Your task to perform on an android device: Show the shopping cart on ebay.com. Search for usb-a on ebay.com, select the first entry, add it to the cart, then select checkout. Image 0: 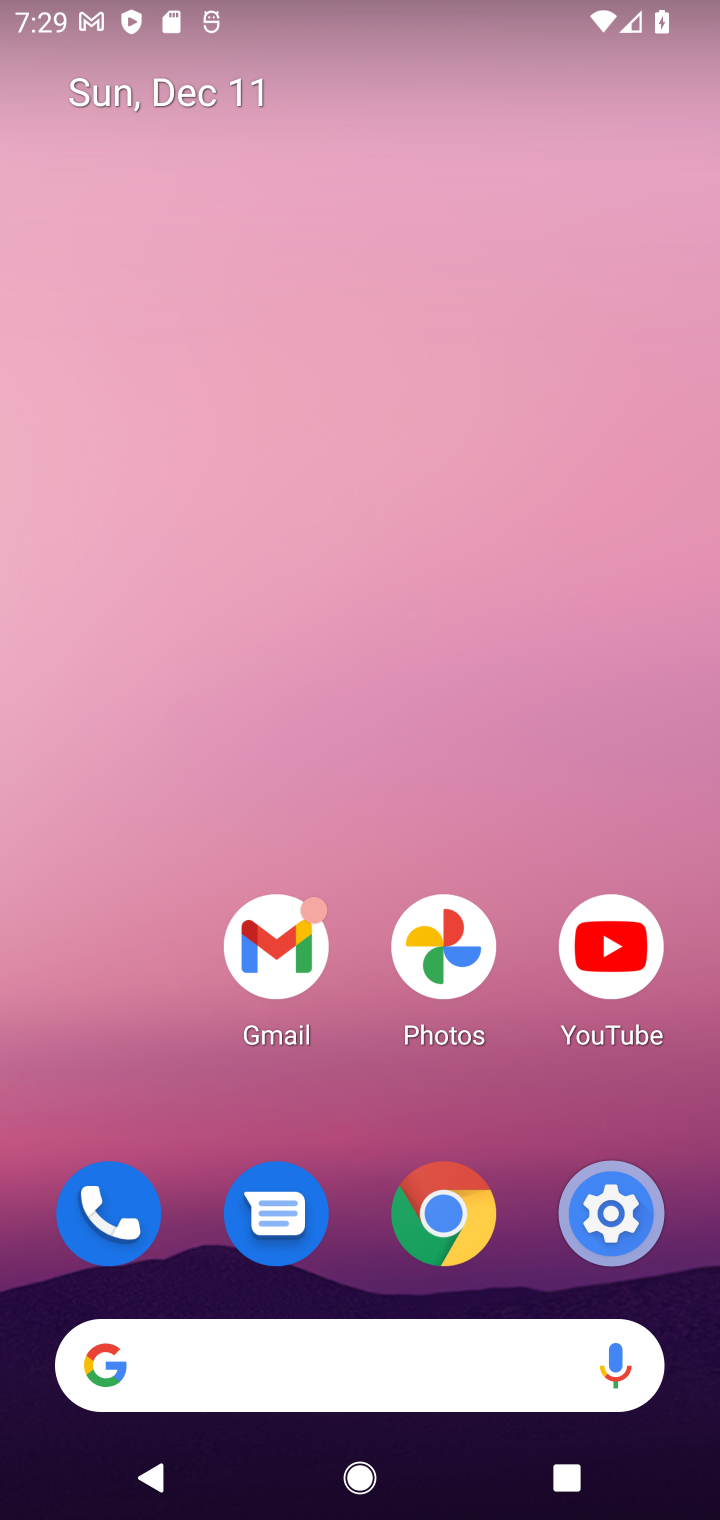
Step 0: click (348, 1327)
Your task to perform on an android device: Show the shopping cart on ebay.com. Search for usb-a on ebay.com, select the first entry, add it to the cart, then select checkout. Image 1: 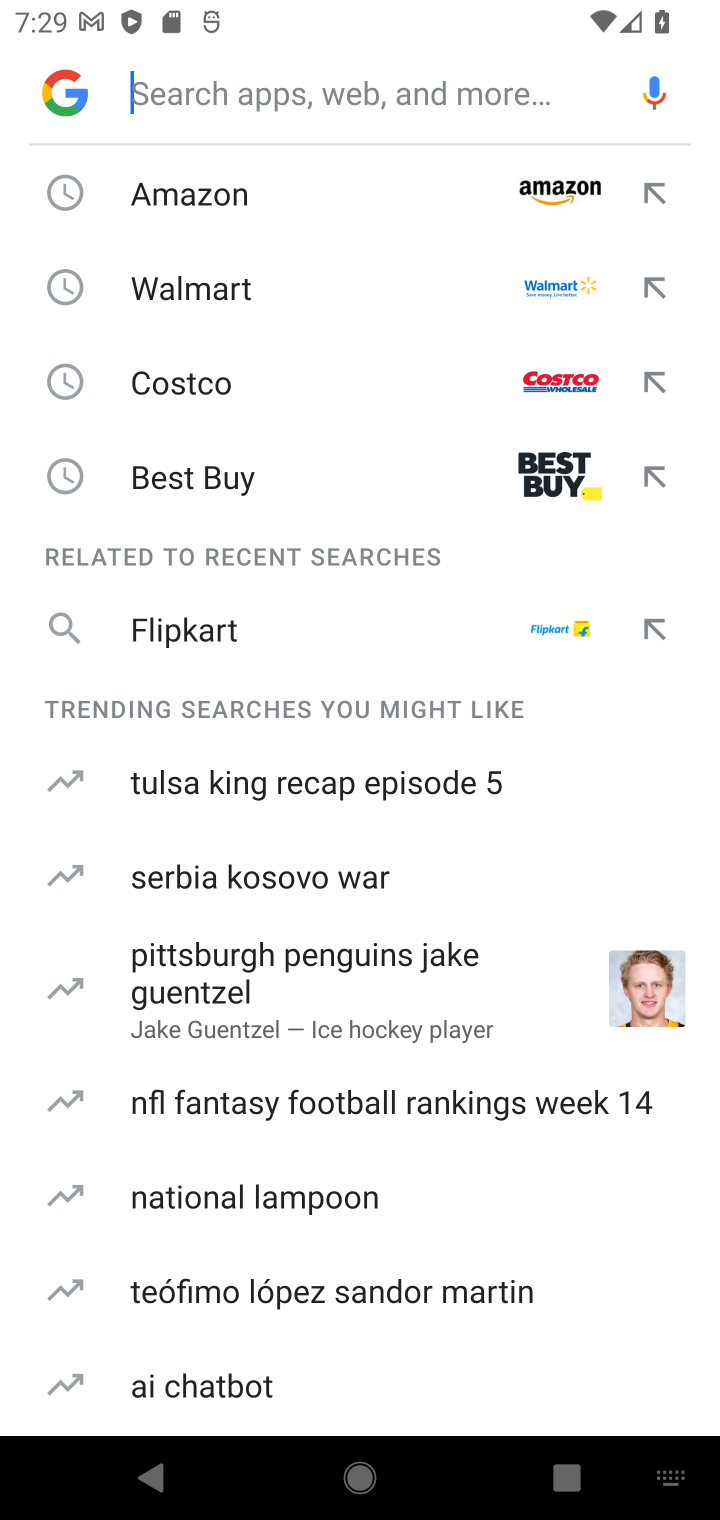
Step 1: type "eb"
Your task to perform on an android device: Show the shopping cart on ebay.com. Search for usb-a on ebay.com, select the first entry, add it to the cart, then select checkout. Image 2: 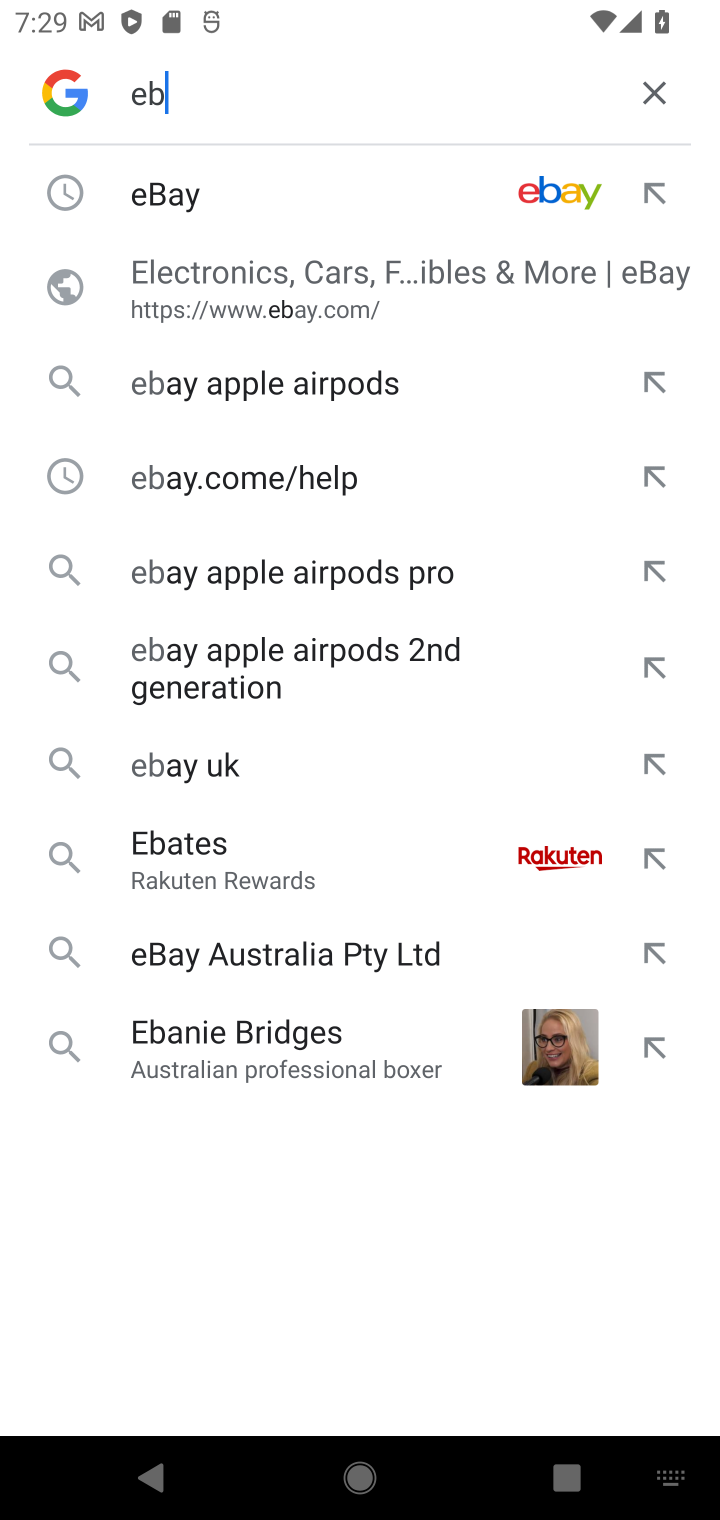
Step 2: type "ebay"
Your task to perform on an android device: Show the shopping cart on ebay.com. Search for usb-a on ebay.com, select the first entry, add it to the cart, then select checkout. Image 3: 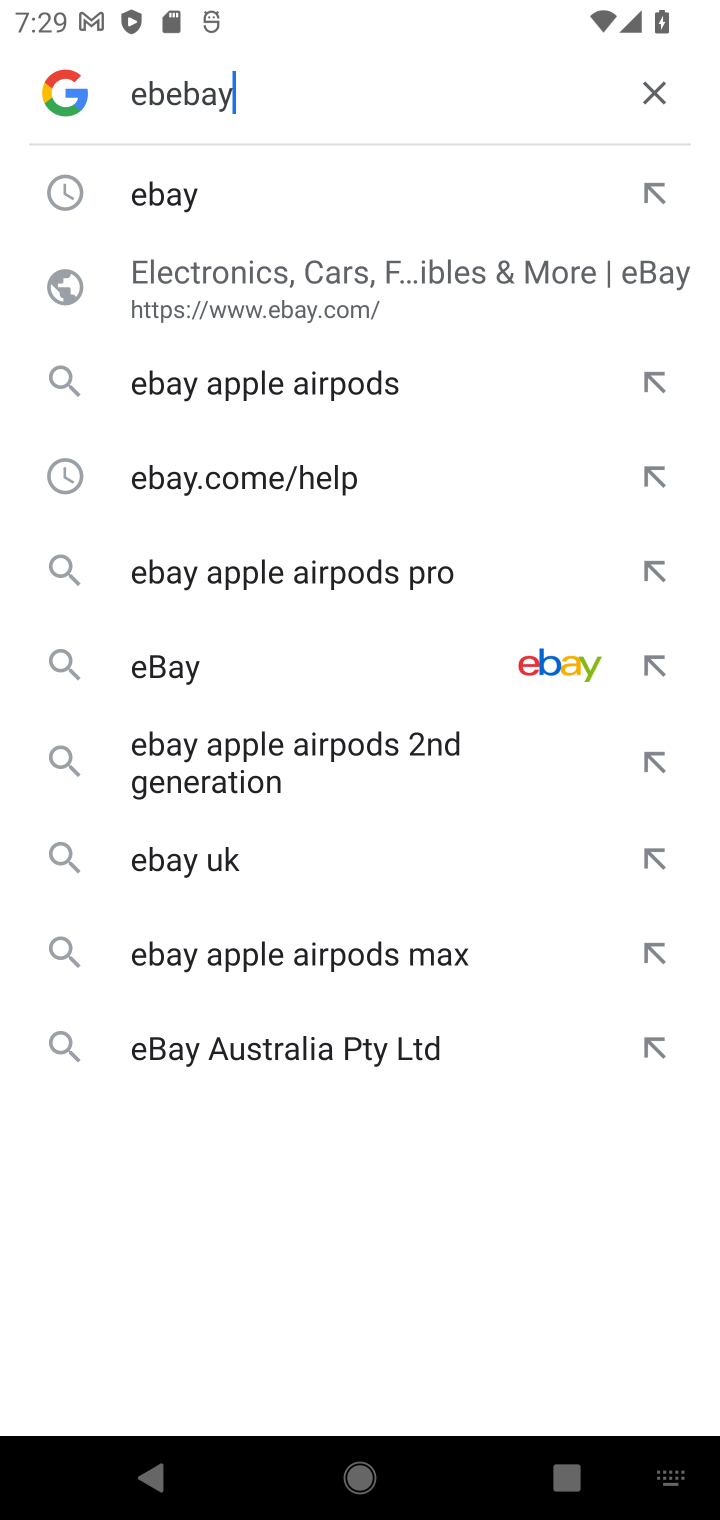
Step 3: click (221, 210)
Your task to perform on an android device: Show the shopping cart on ebay.com. Search for usb-a on ebay.com, select the first entry, add it to the cart, then select checkout. Image 4: 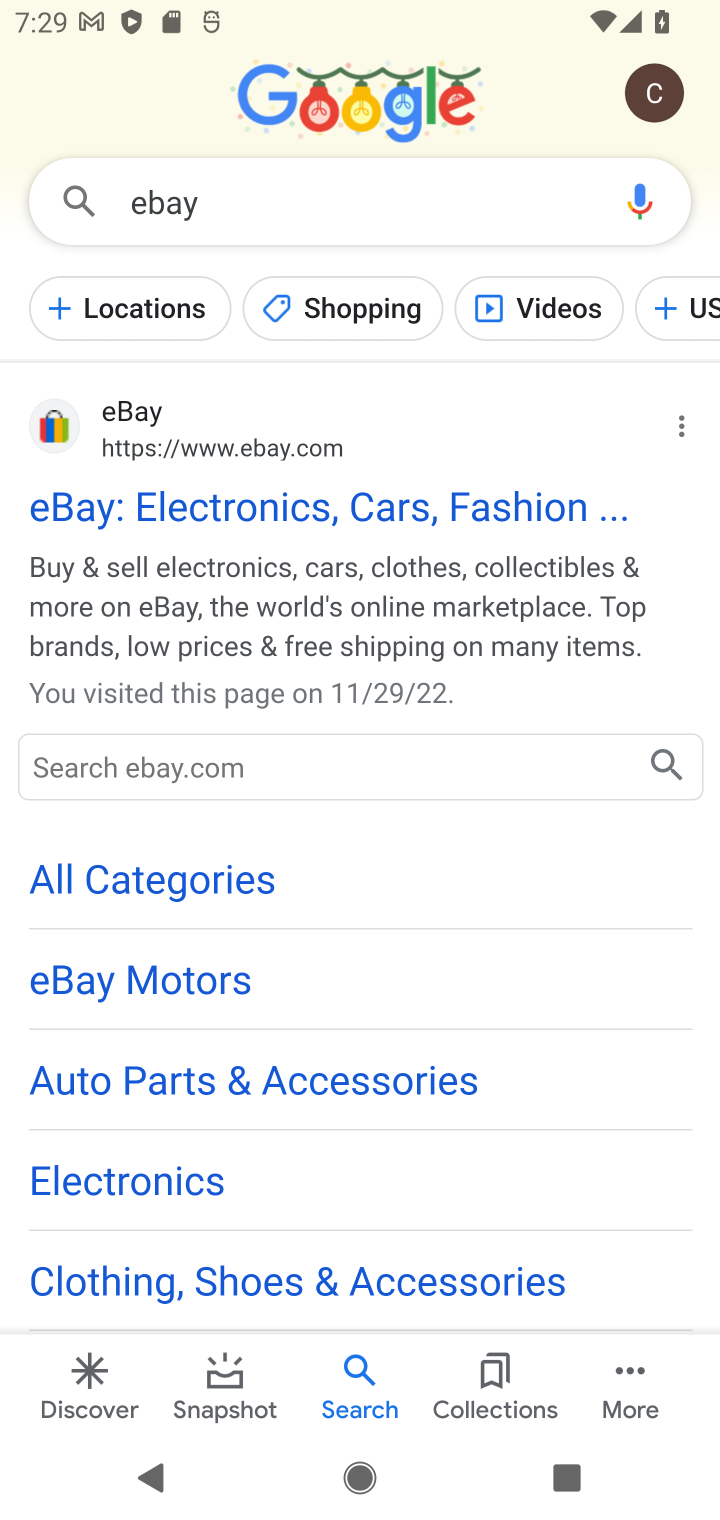
Step 4: click (200, 462)
Your task to perform on an android device: Show the shopping cart on ebay.com. Search for usb-a on ebay.com, select the first entry, add it to the cart, then select checkout. Image 5: 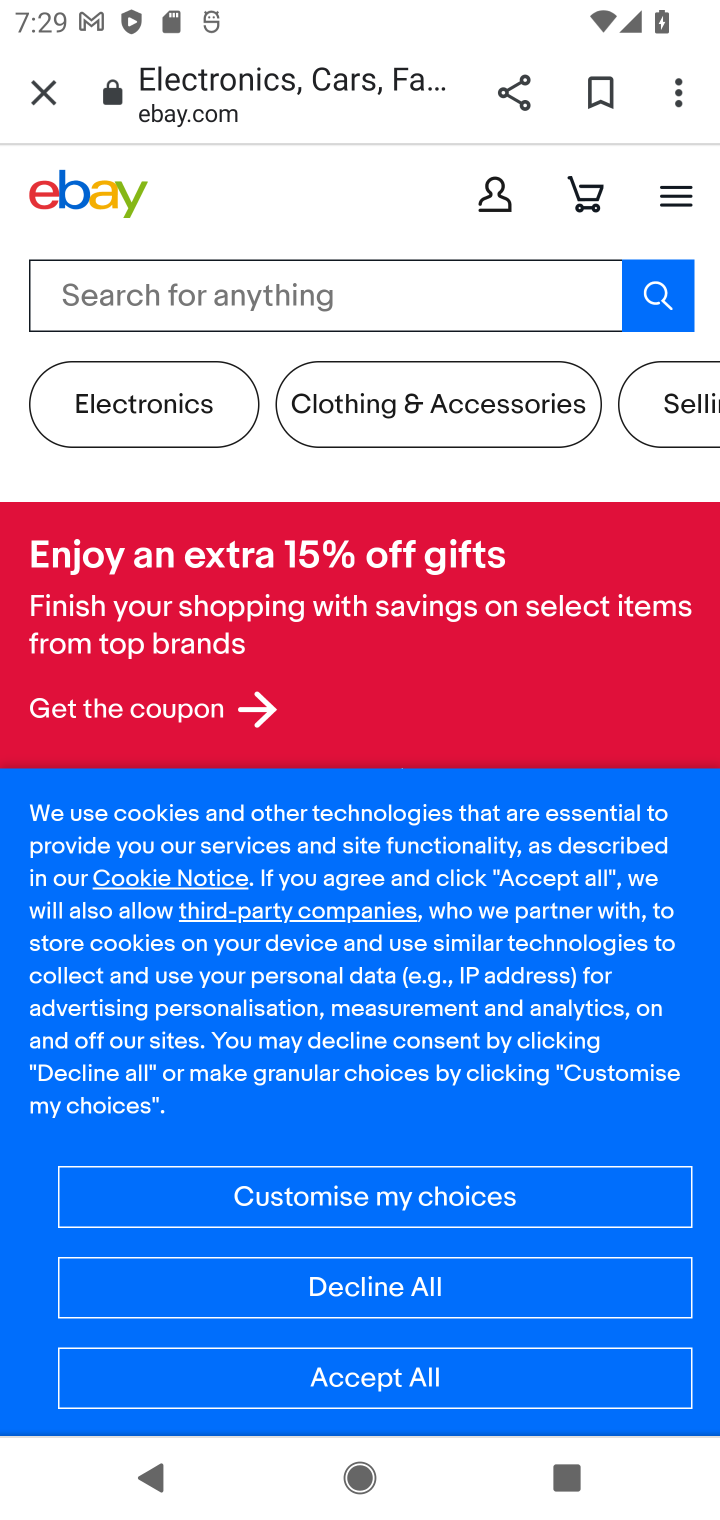
Step 5: click (351, 293)
Your task to perform on an android device: Show the shopping cart on ebay.com. Search for usb-a on ebay.com, select the first entry, add it to the cart, then select checkout. Image 6: 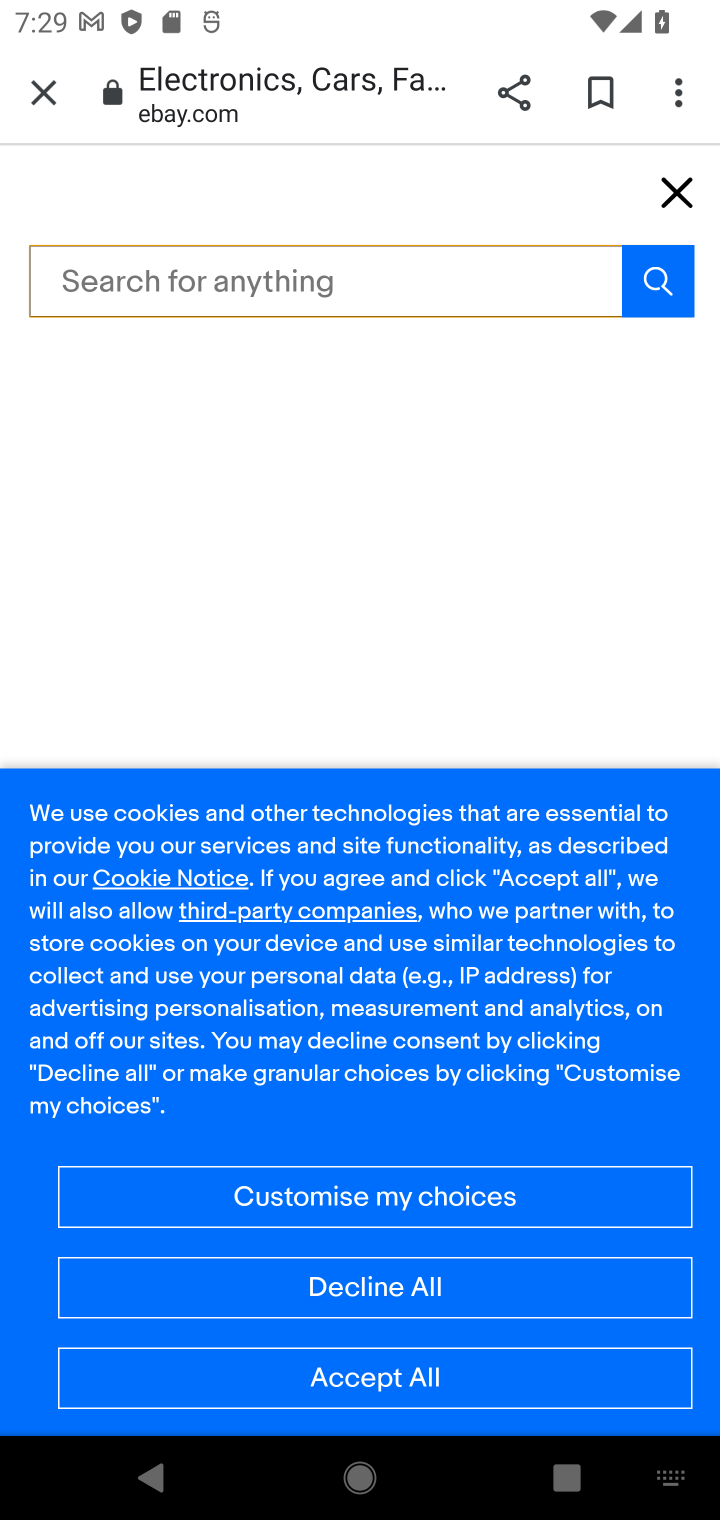
Step 6: type "usb-a"
Your task to perform on an android device: Show the shopping cart on ebay.com. Search for usb-a on ebay.com, select the first entry, add it to the cart, then select checkout. Image 7: 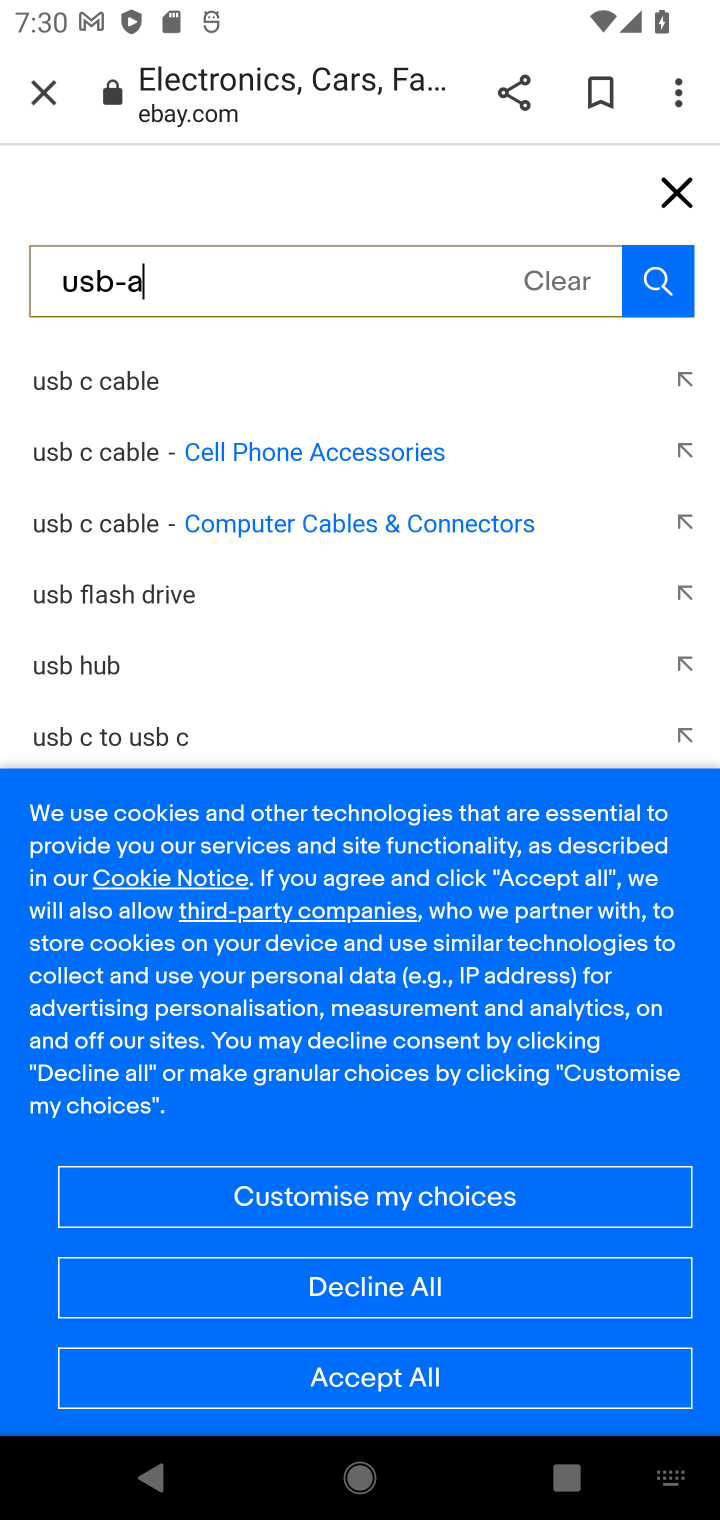
Step 7: click (185, 371)
Your task to perform on an android device: Show the shopping cart on ebay.com. Search for usb-a on ebay.com, select the first entry, add it to the cart, then select checkout. Image 8: 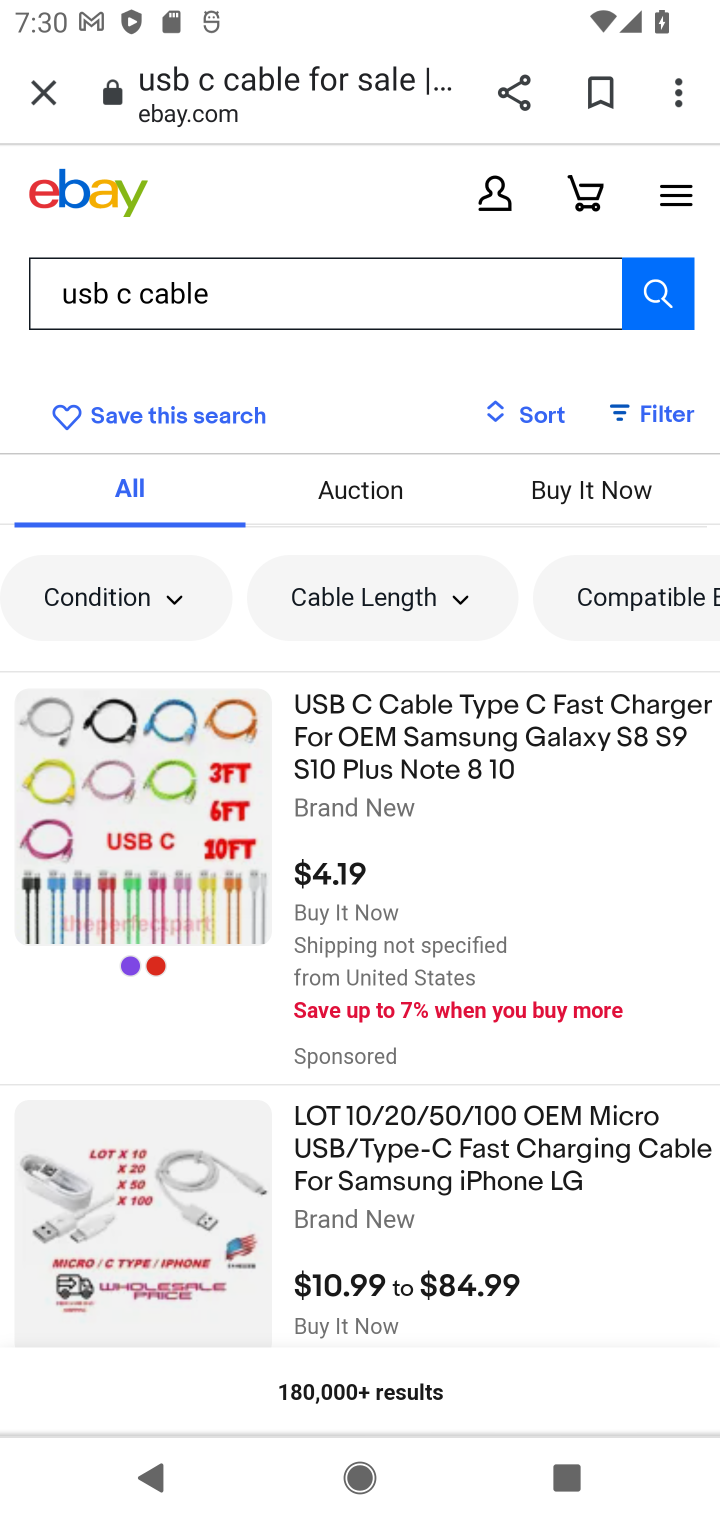
Step 8: click (318, 700)
Your task to perform on an android device: Show the shopping cart on ebay.com. Search for usb-a on ebay.com, select the first entry, add it to the cart, then select checkout. Image 9: 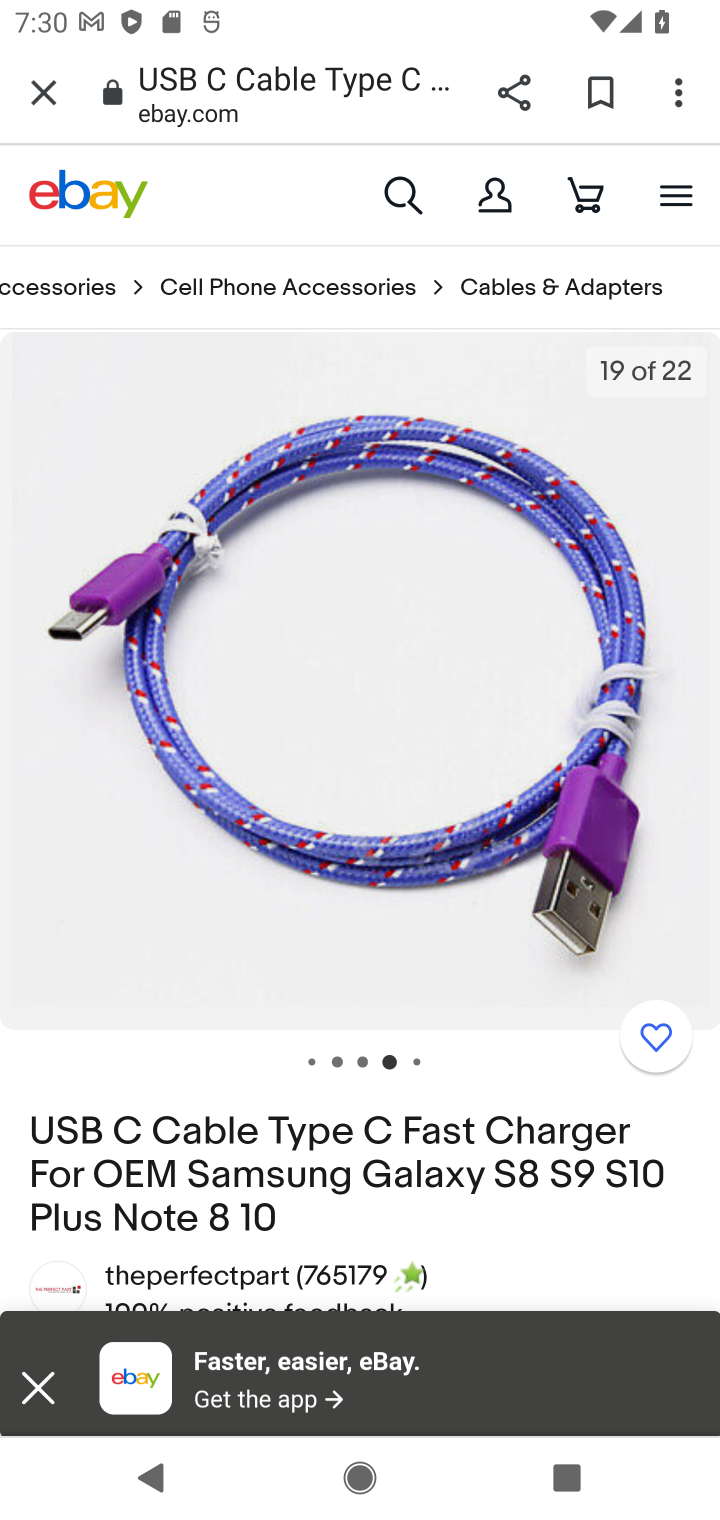
Step 9: click (53, 1409)
Your task to perform on an android device: Show the shopping cart on ebay.com. Search for usb-a on ebay.com, select the first entry, add it to the cart, then select checkout. Image 10: 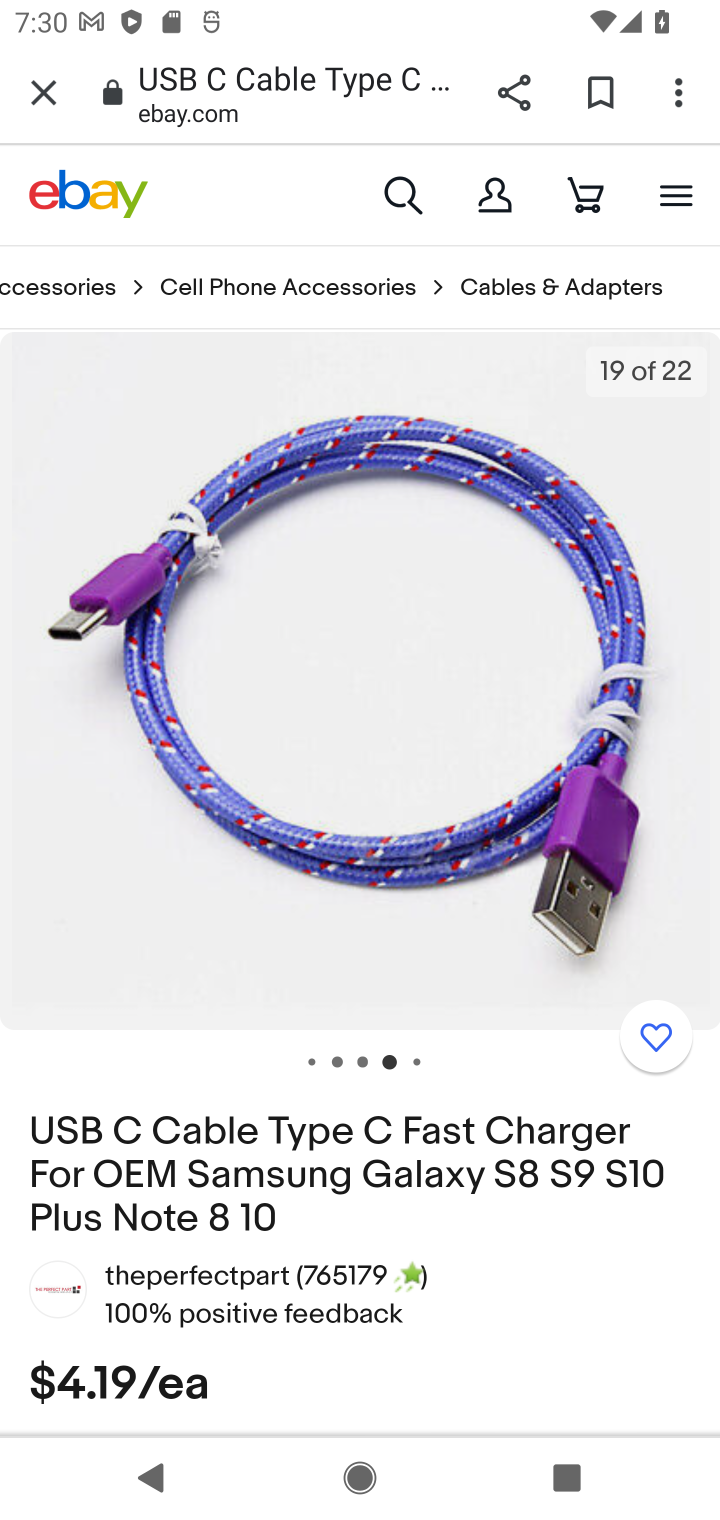
Step 10: drag from (517, 1307) to (448, 641)
Your task to perform on an android device: Show the shopping cart on ebay.com. Search for usb-a on ebay.com, select the first entry, add it to the cart, then select checkout. Image 11: 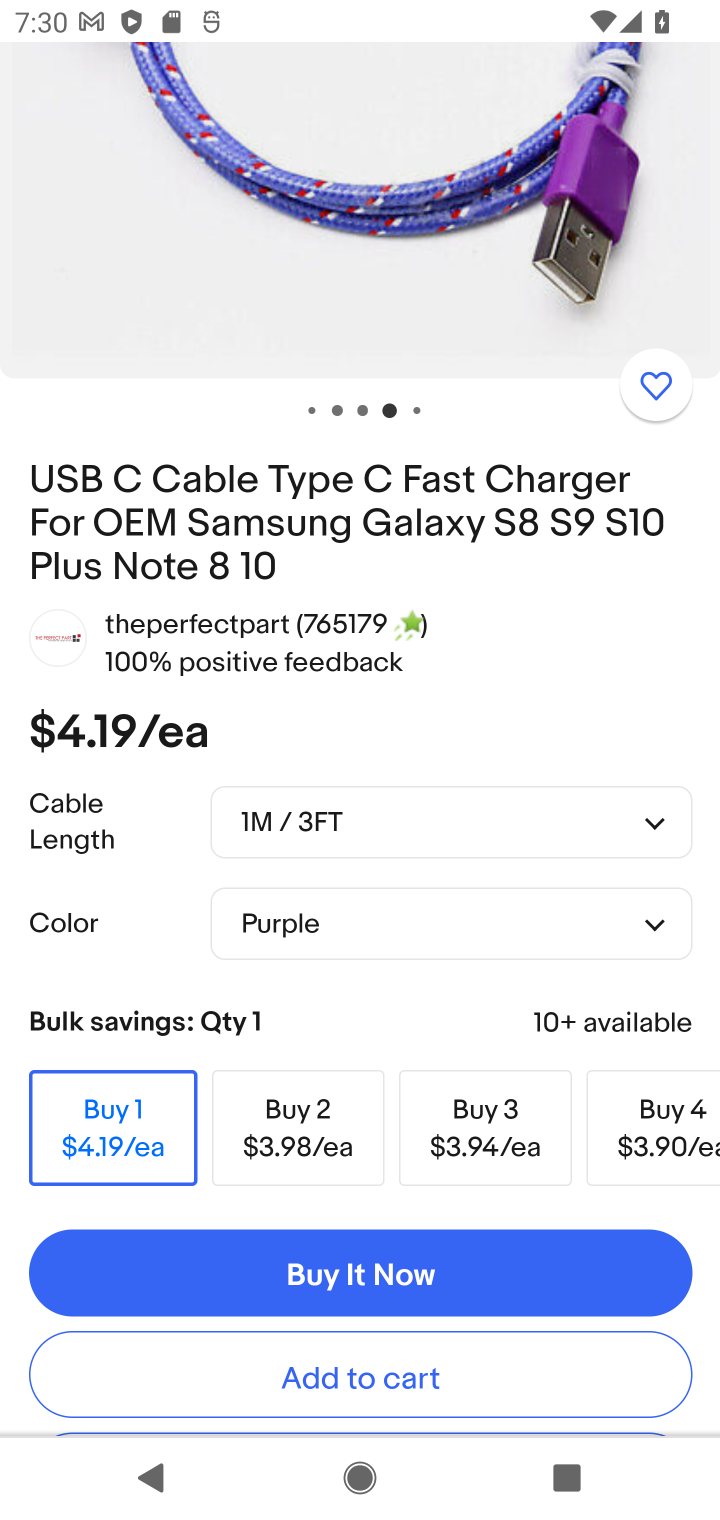
Step 11: click (371, 1342)
Your task to perform on an android device: Show the shopping cart on ebay.com. Search for usb-a on ebay.com, select the first entry, add it to the cart, then select checkout. Image 12: 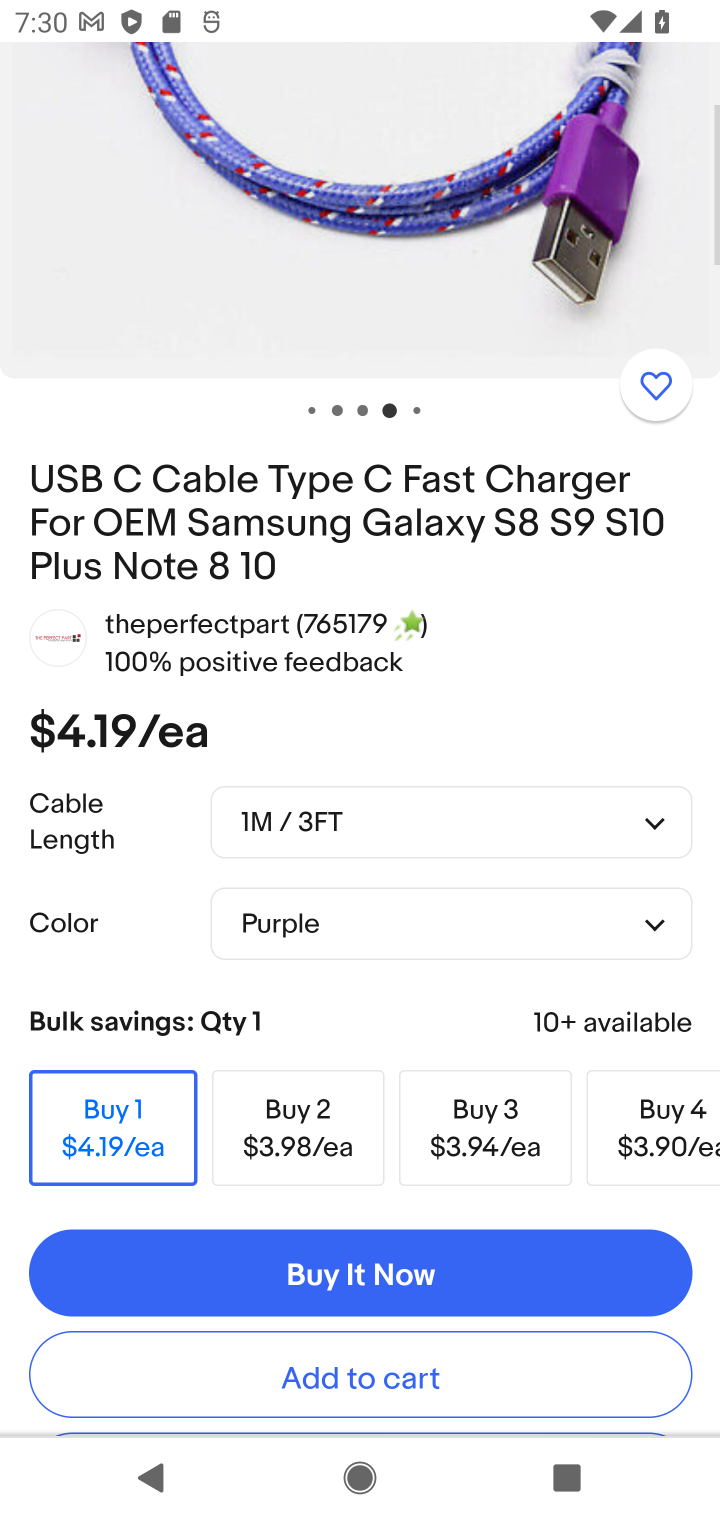
Step 12: task complete